Your task to perform on an android device: Search for the best rated Bluetooth earbuds on Ali express Image 0: 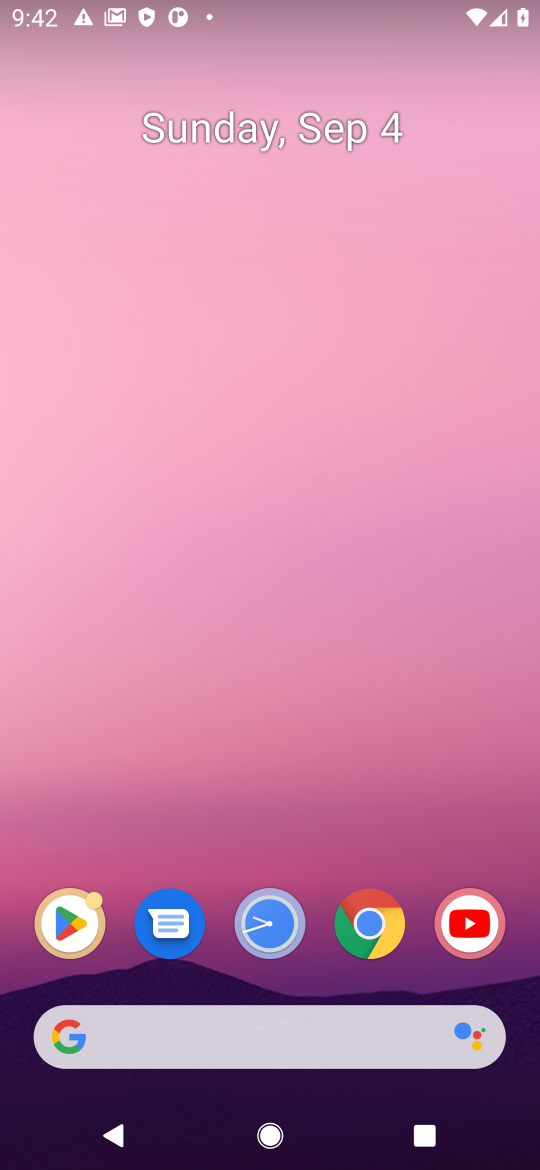
Step 0: press home button
Your task to perform on an android device: Search for the best rated Bluetooth earbuds on Ali express Image 1: 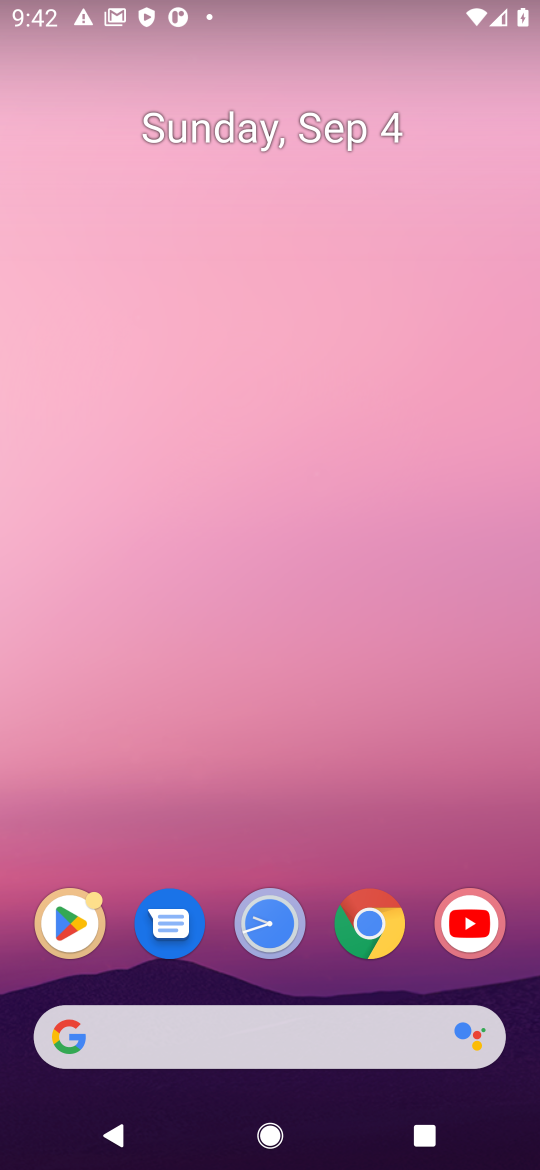
Step 1: click (401, 1042)
Your task to perform on an android device: Search for the best rated Bluetooth earbuds on Ali express Image 2: 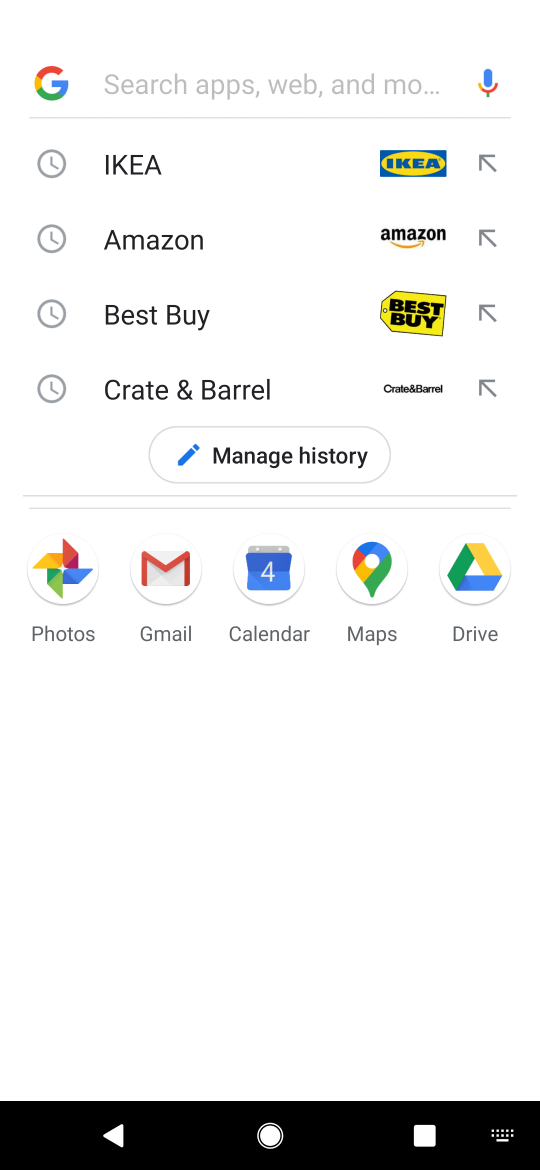
Step 2: press enter
Your task to perform on an android device: Search for the best rated Bluetooth earbuds on Ali express Image 3: 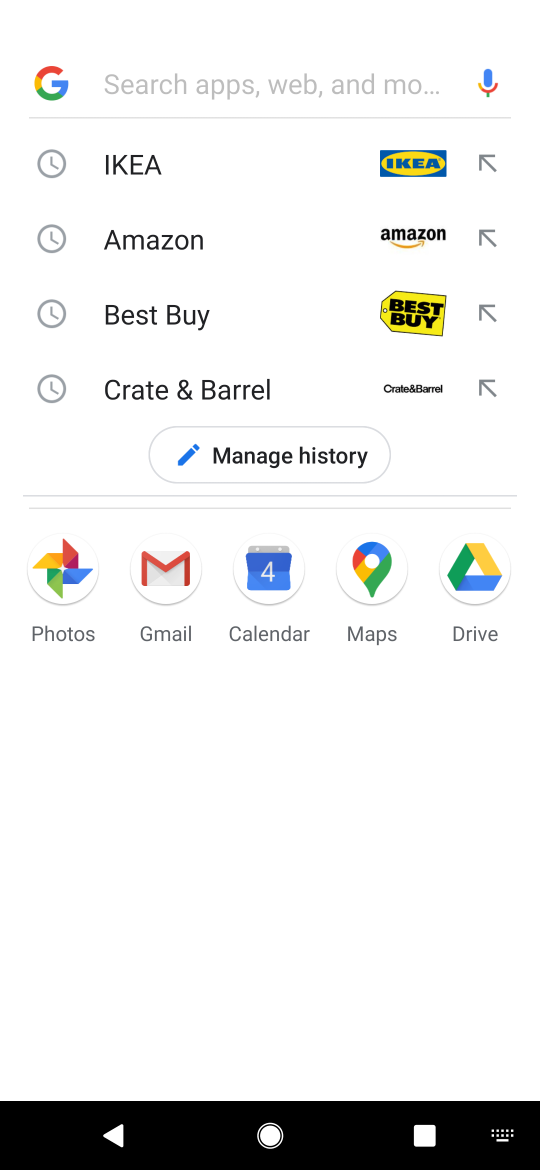
Step 3: type "ali express"
Your task to perform on an android device: Search for the best rated Bluetooth earbuds on Ali express Image 4: 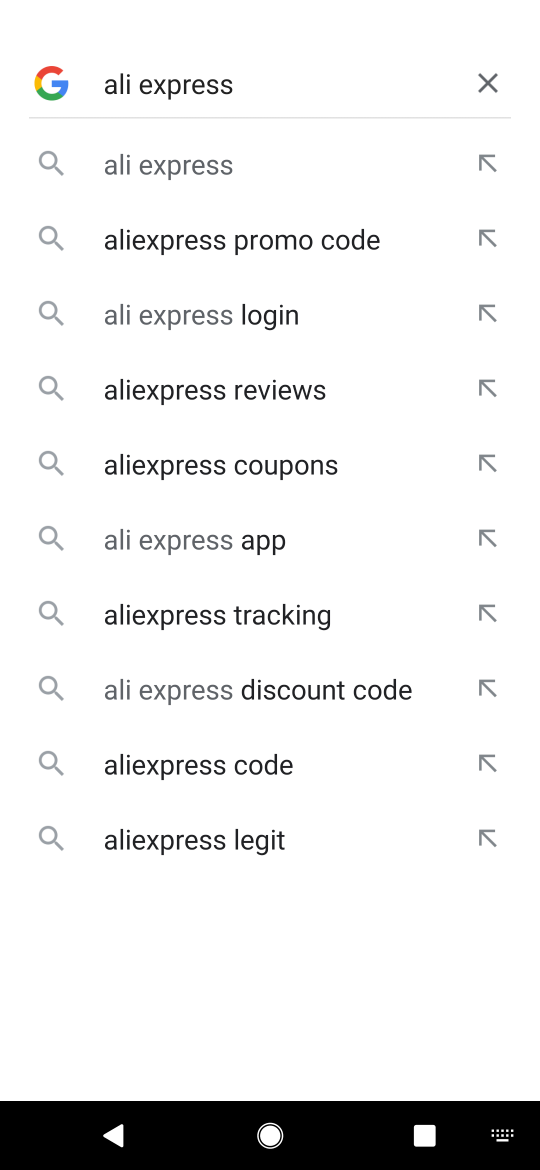
Step 4: click (174, 175)
Your task to perform on an android device: Search for the best rated Bluetooth earbuds on Ali express Image 5: 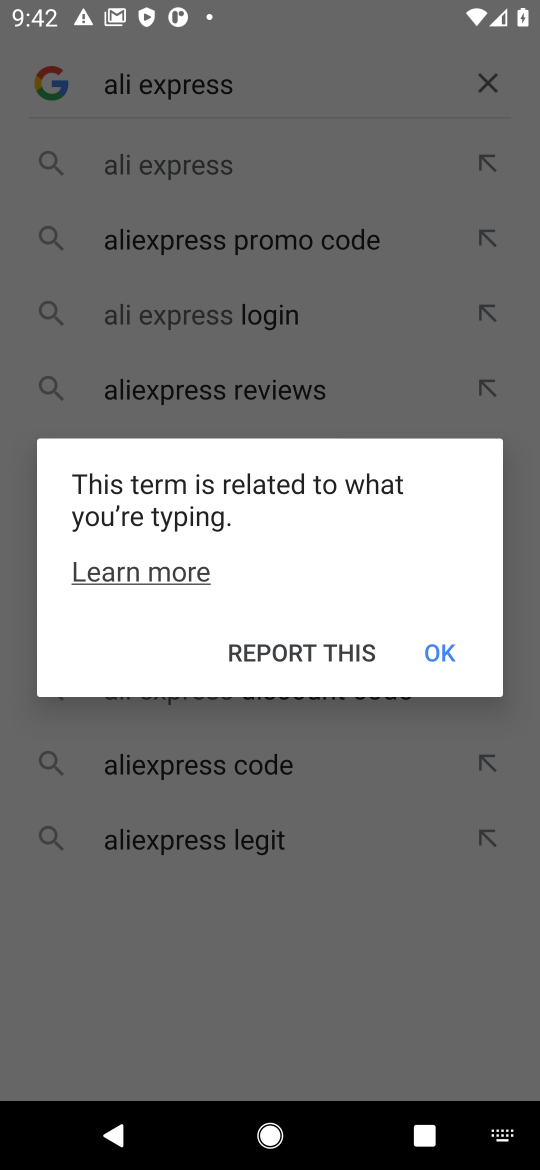
Step 5: click (428, 650)
Your task to perform on an android device: Search for the best rated Bluetooth earbuds on Ali express Image 6: 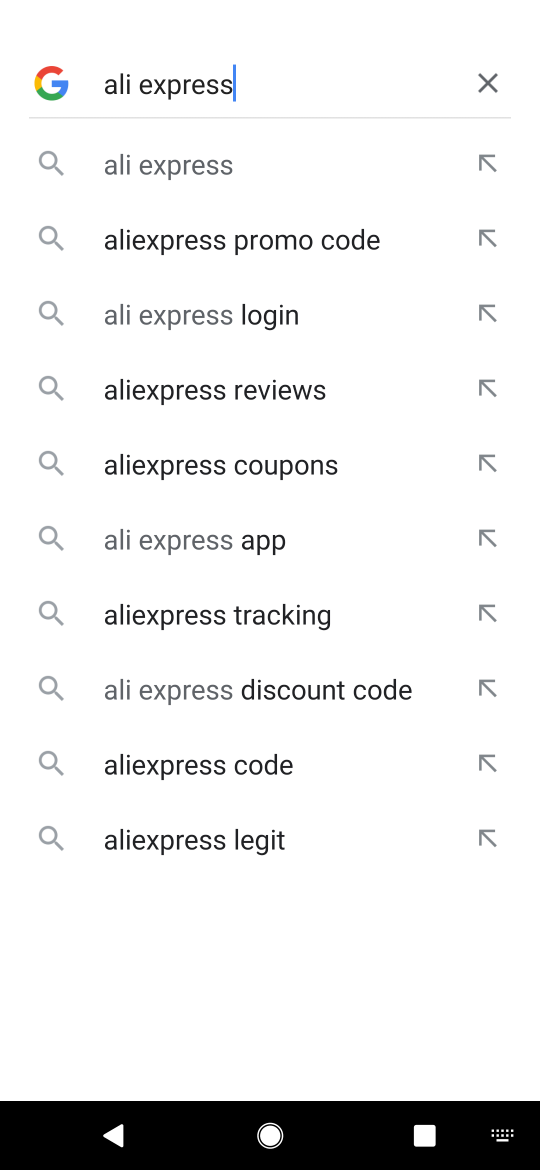
Step 6: click (190, 164)
Your task to perform on an android device: Search for the best rated Bluetooth earbuds on Ali express Image 7: 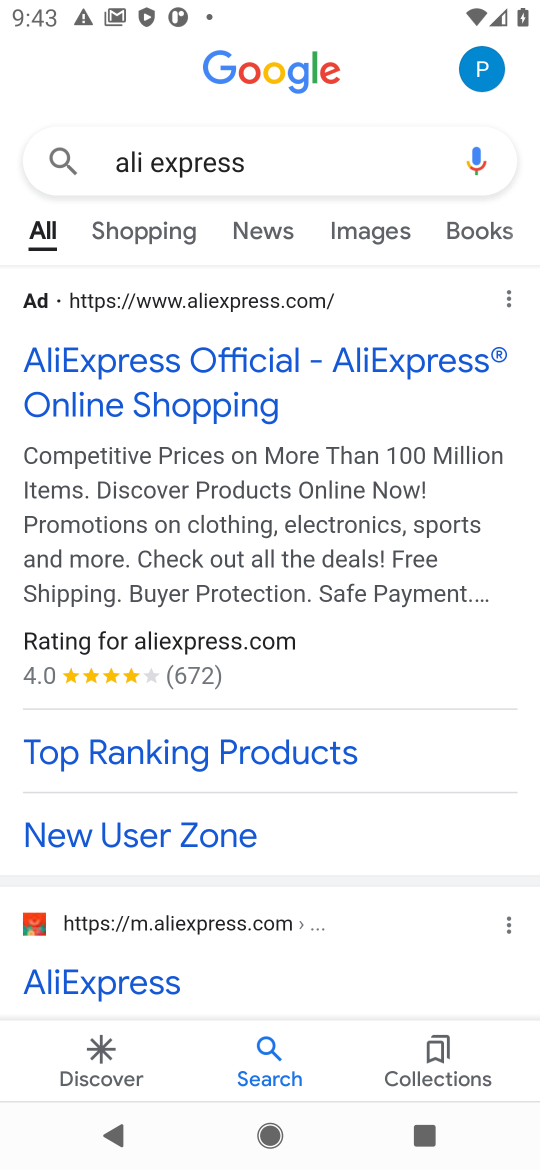
Step 7: click (201, 362)
Your task to perform on an android device: Search for the best rated Bluetooth earbuds on Ali express Image 8: 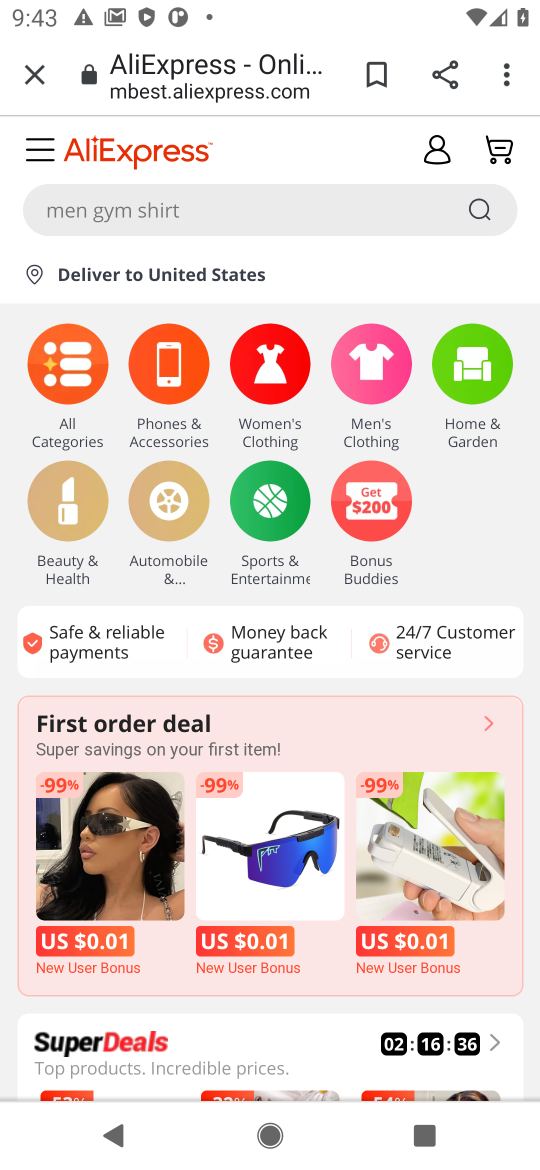
Step 8: click (264, 201)
Your task to perform on an android device: Search for the best rated Bluetooth earbuds on Ali express Image 9: 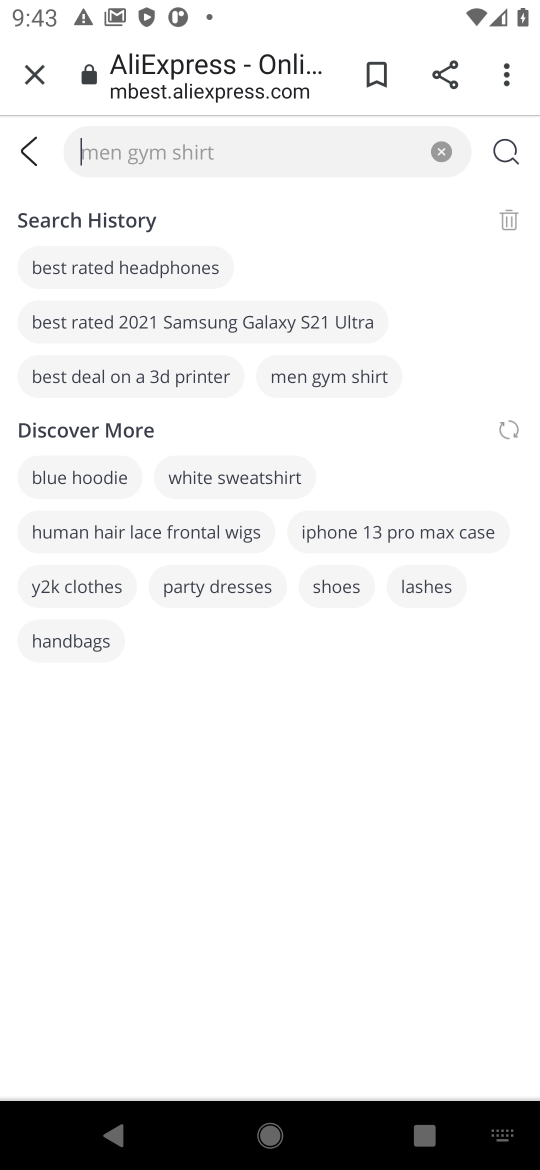
Step 9: type "best rated Bluetooth earbuds"
Your task to perform on an android device: Search for the best rated Bluetooth earbuds on Ali express Image 10: 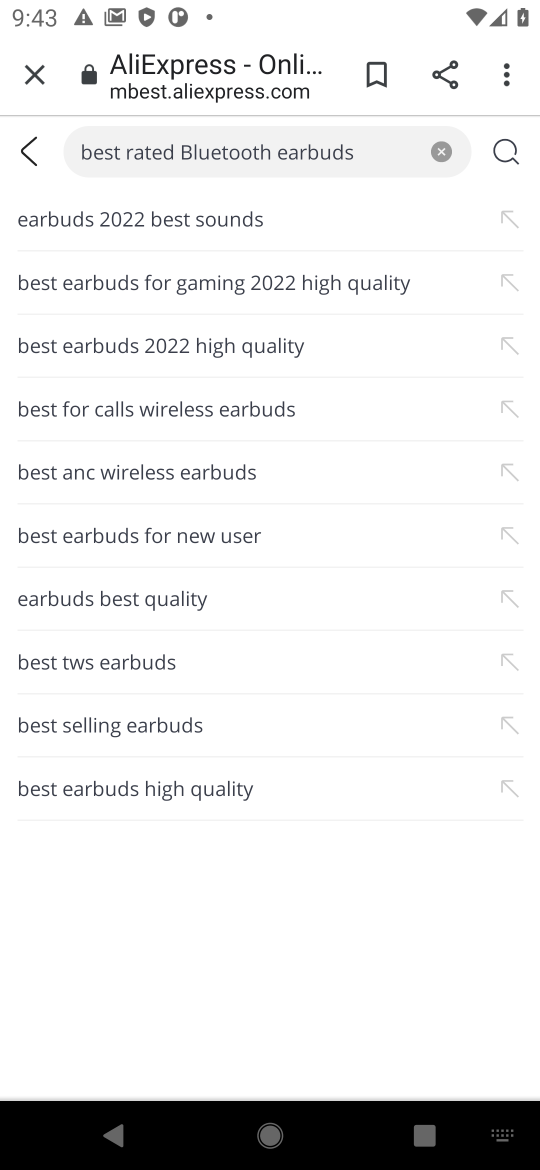
Step 10: click (509, 152)
Your task to perform on an android device: Search for the best rated Bluetooth earbuds on Ali express Image 11: 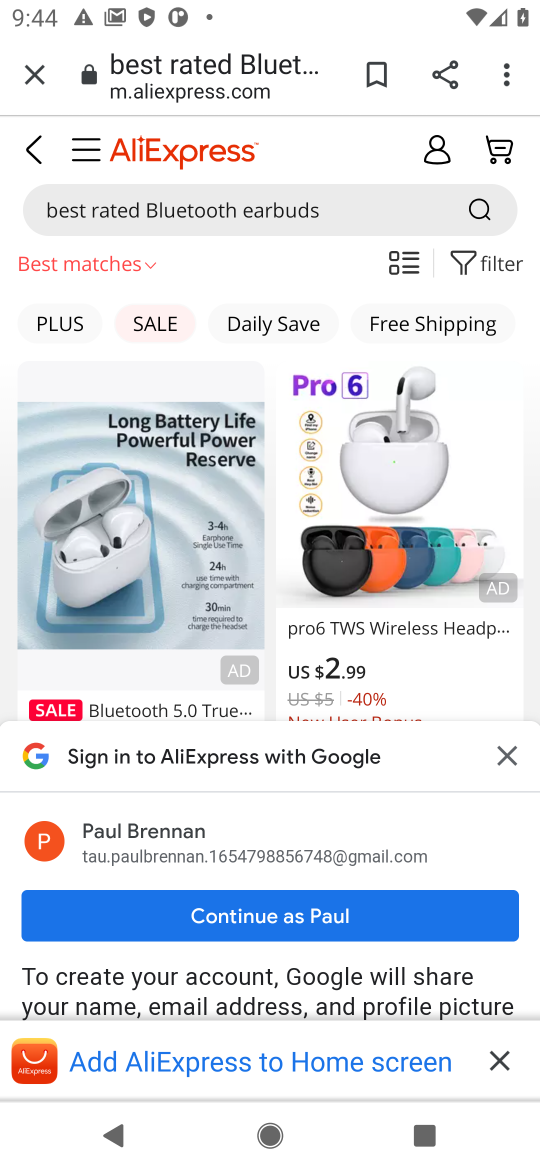
Step 11: task complete